Your task to perform on an android device: turn off javascript in the chrome app Image 0: 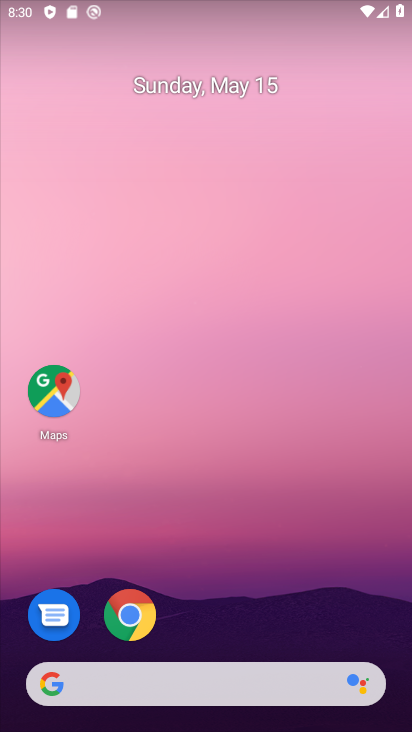
Step 0: drag from (240, 492) to (258, 14)
Your task to perform on an android device: turn off javascript in the chrome app Image 1: 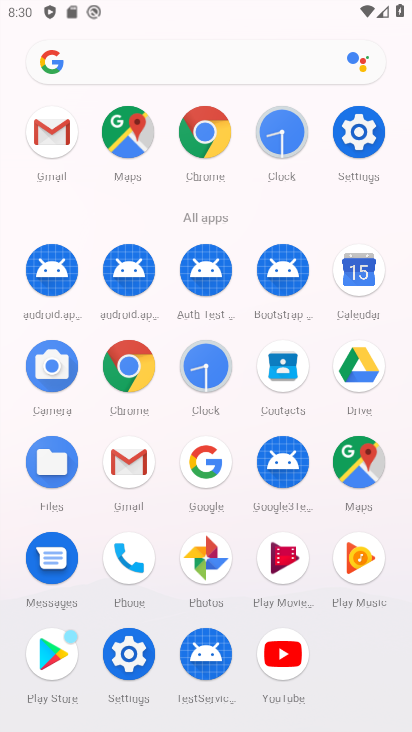
Step 1: drag from (13, 530) to (27, 187)
Your task to perform on an android device: turn off javascript in the chrome app Image 2: 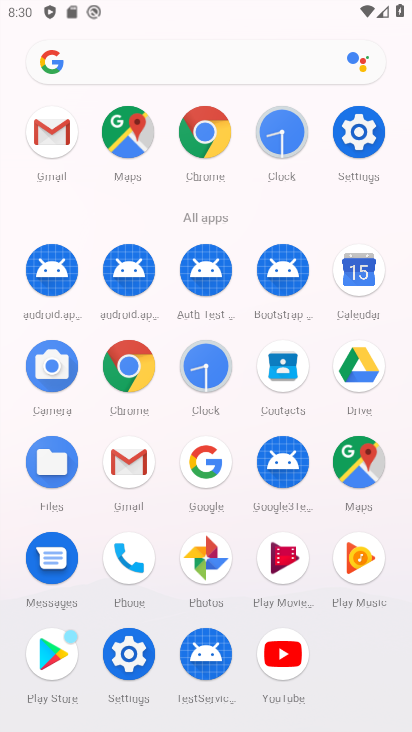
Step 2: click (126, 363)
Your task to perform on an android device: turn off javascript in the chrome app Image 3: 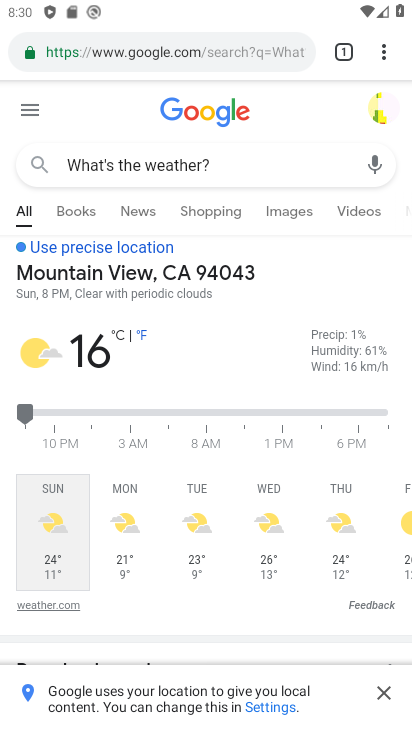
Step 3: drag from (386, 49) to (214, 583)
Your task to perform on an android device: turn off javascript in the chrome app Image 4: 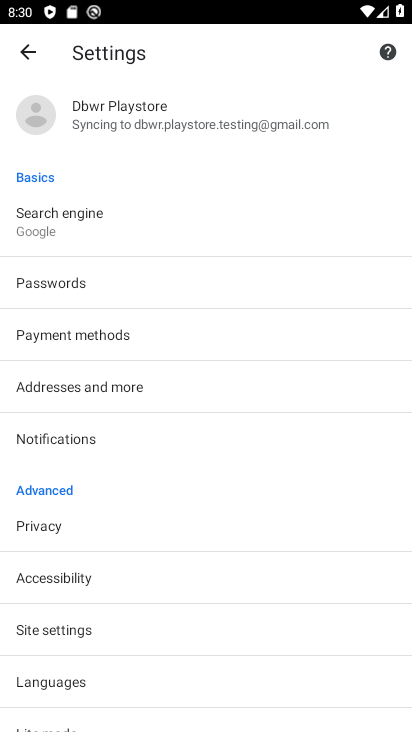
Step 4: drag from (182, 537) to (254, 170)
Your task to perform on an android device: turn off javascript in the chrome app Image 5: 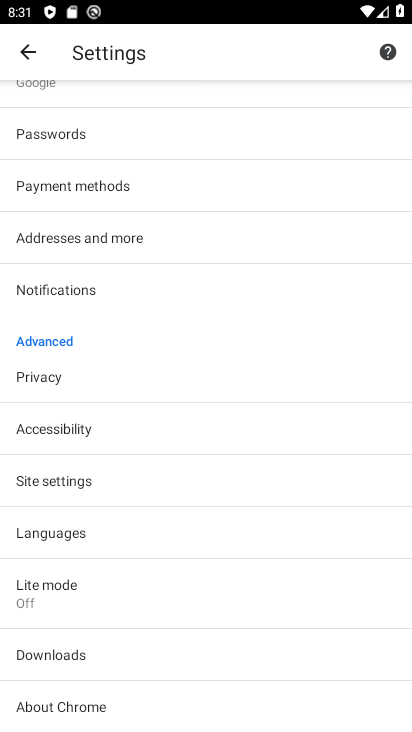
Step 5: click (94, 483)
Your task to perform on an android device: turn off javascript in the chrome app Image 6: 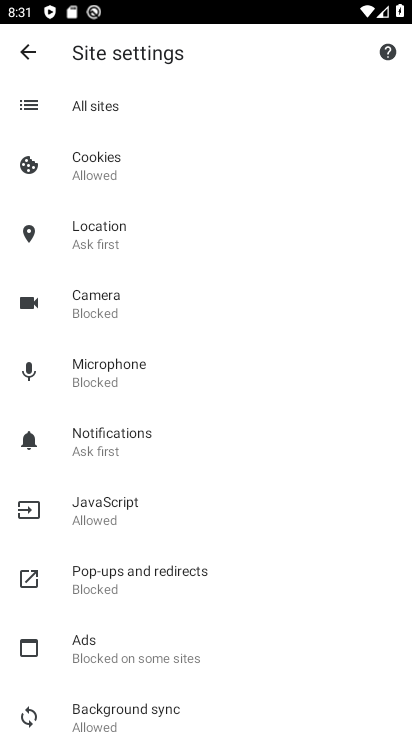
Step 6: click (130, 511)
Your task to perform on an android device: turn off javascript in the chrome app Image 7: 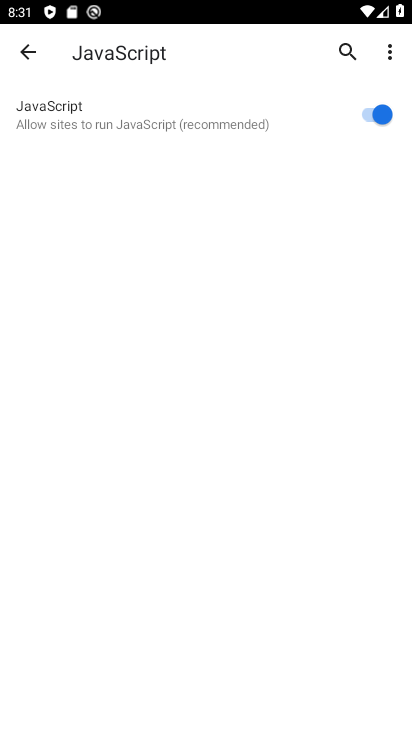
Step 7: click (360, 120)
Your task to perform on an android device: turn off javascript in the chrome app Image 8: 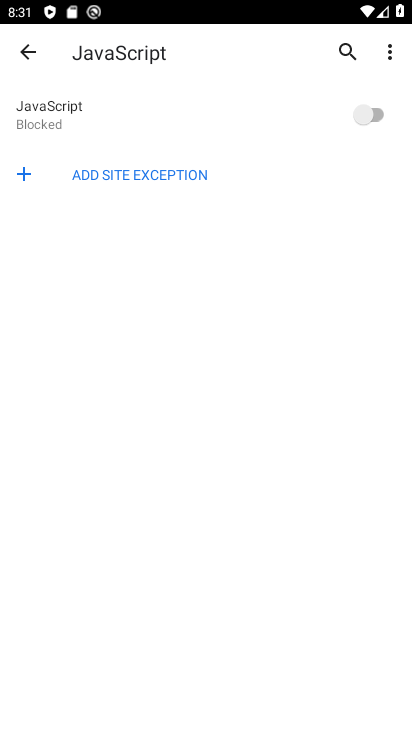
Step 8: task complete